Your task to perform on an android device: Open the calendar app, open the side menu, and click the "Day" option Image 0: 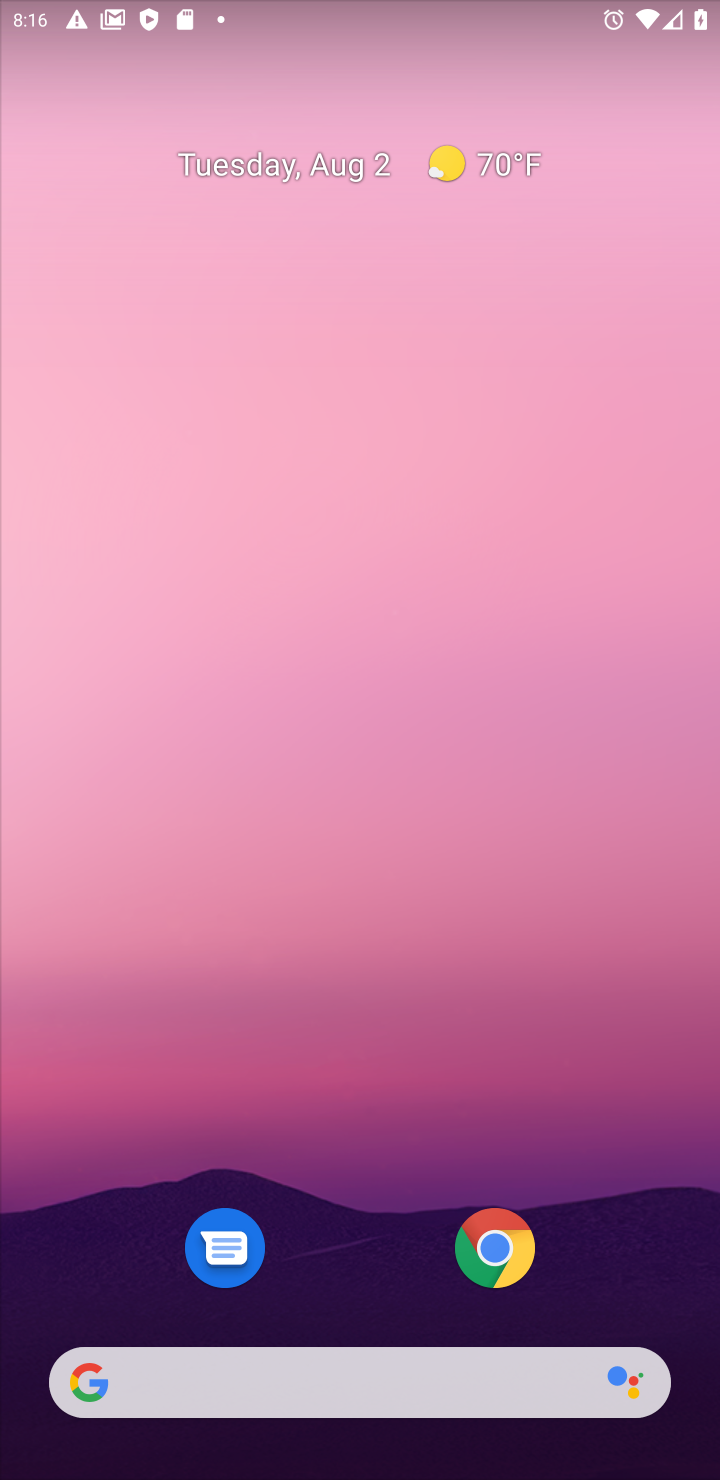
Step 0: drag from (356, 1101) to (516, 141)
Your task to perform on an android device: Open the calendar app, open the side menu, and click the "Day" option Image 1: 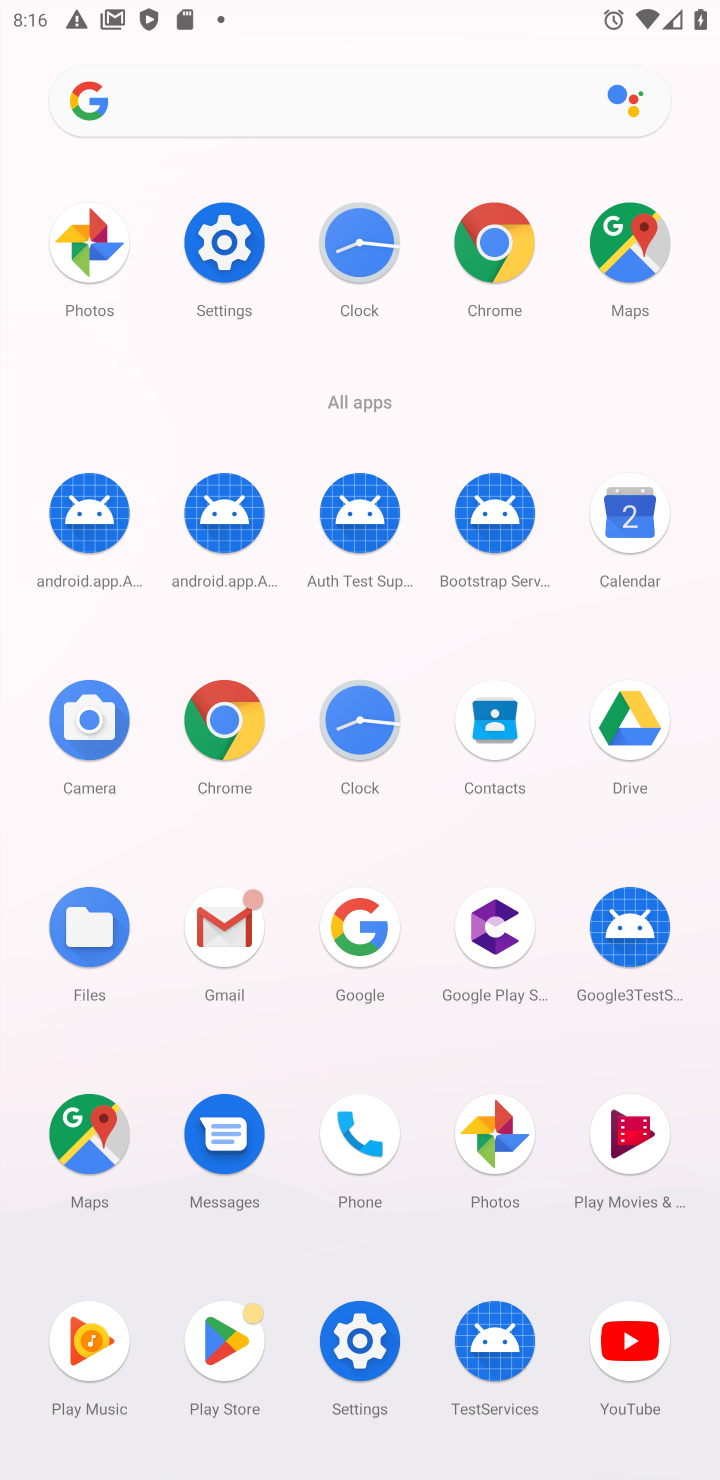
Step 1: click (628, 517)
Your task to perform on an android device: Open the calendar app, open the side menu, and click the "Day" option Image 2: 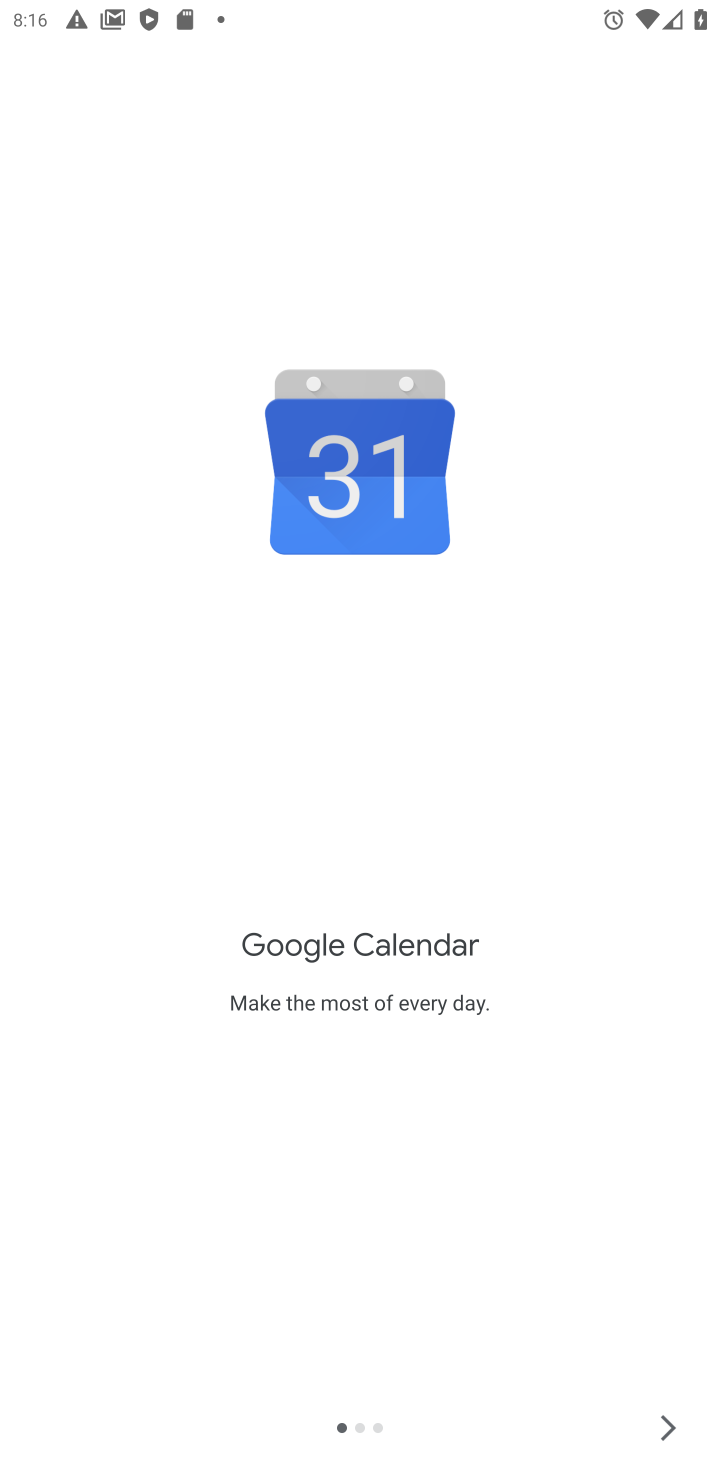
Step 2: click (671, 1422)
Your task to perform on an android device: Open the calendar app, open the side menu, and click the "Day" option Image 3: 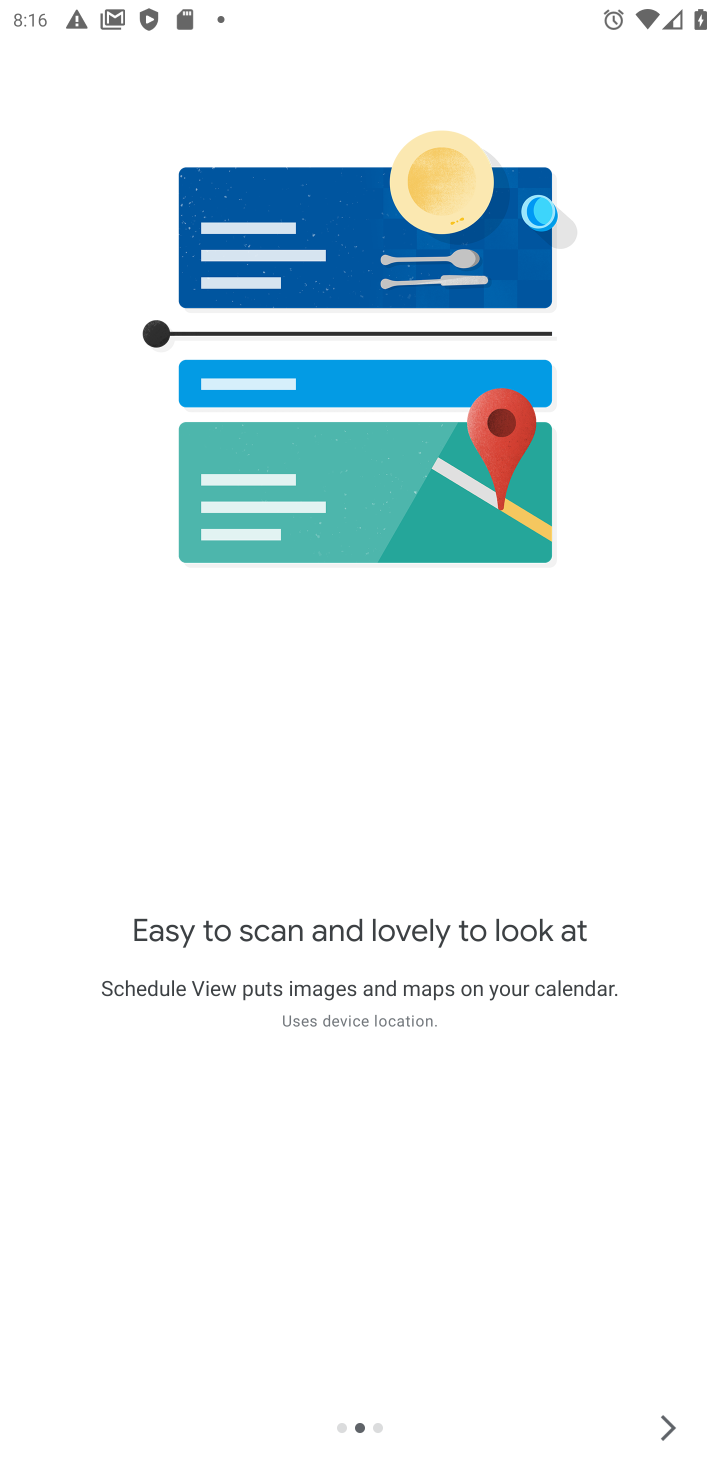
Step 3: click (671, 1422)
Your task to perform on an android device: Open the calendar app, open the side menu, and click the "Day" option Image 4: 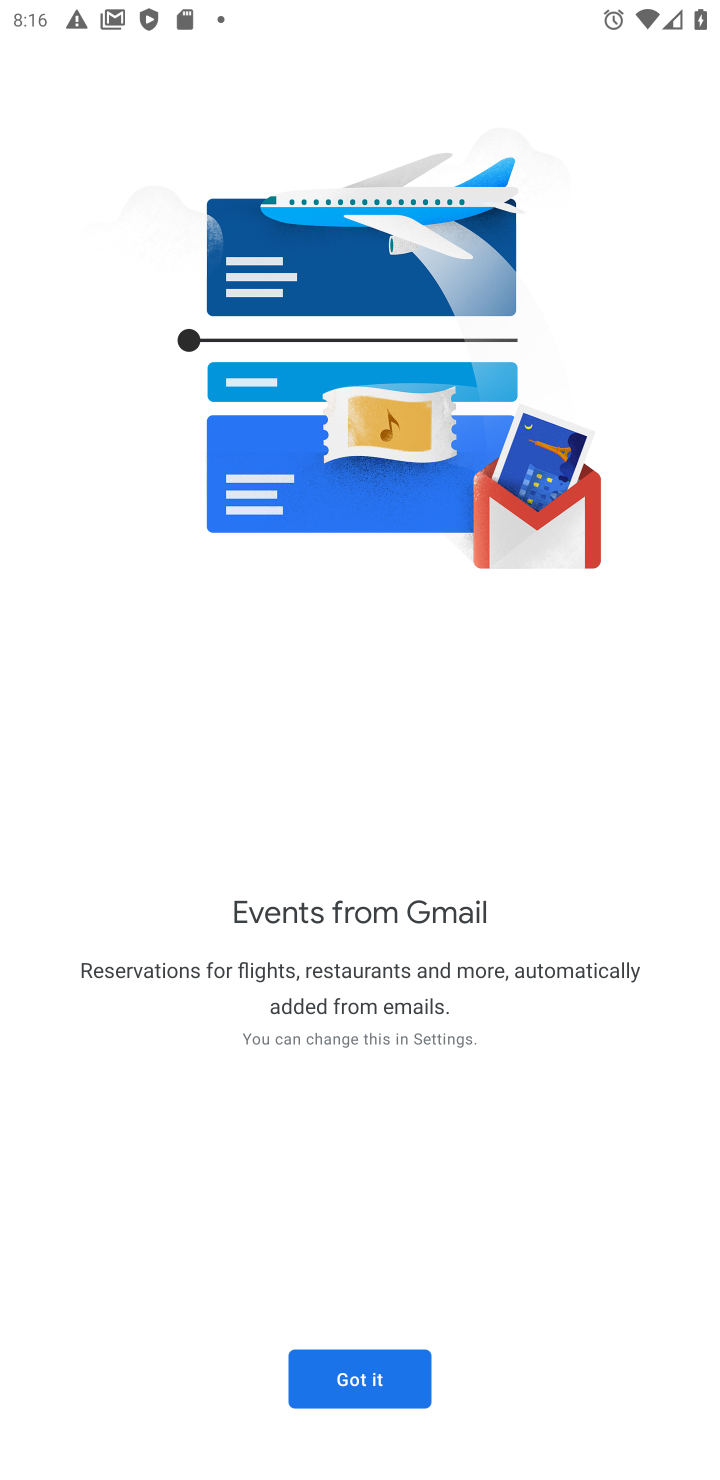
Step 4: click (375, 1368)
Your task to perform on an android device: Open the calendar app, open the side menu, and click the "Day" option Image 5: 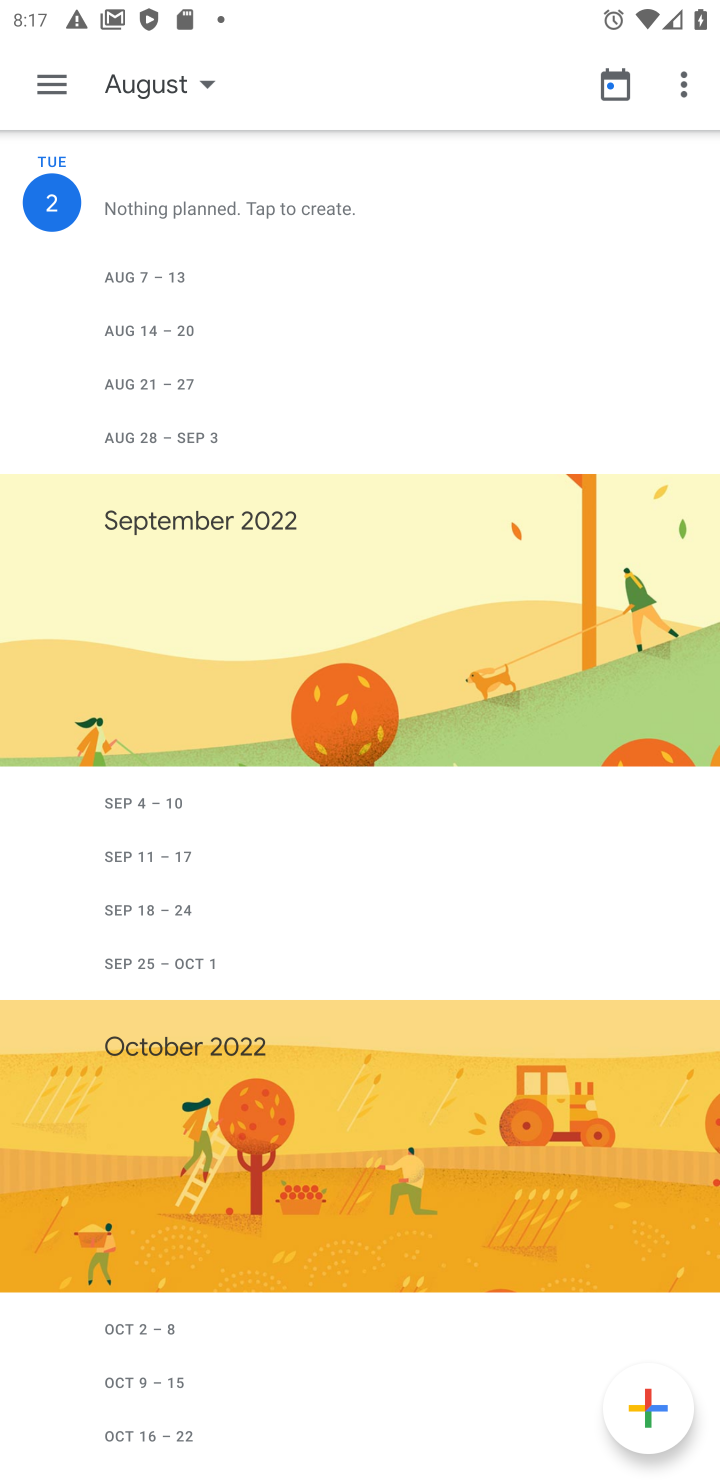
Step 5: click (58, 75)
Your task to perform on an android device: Open the calendar app, open the side menu, and click the "Day" option Image 6: 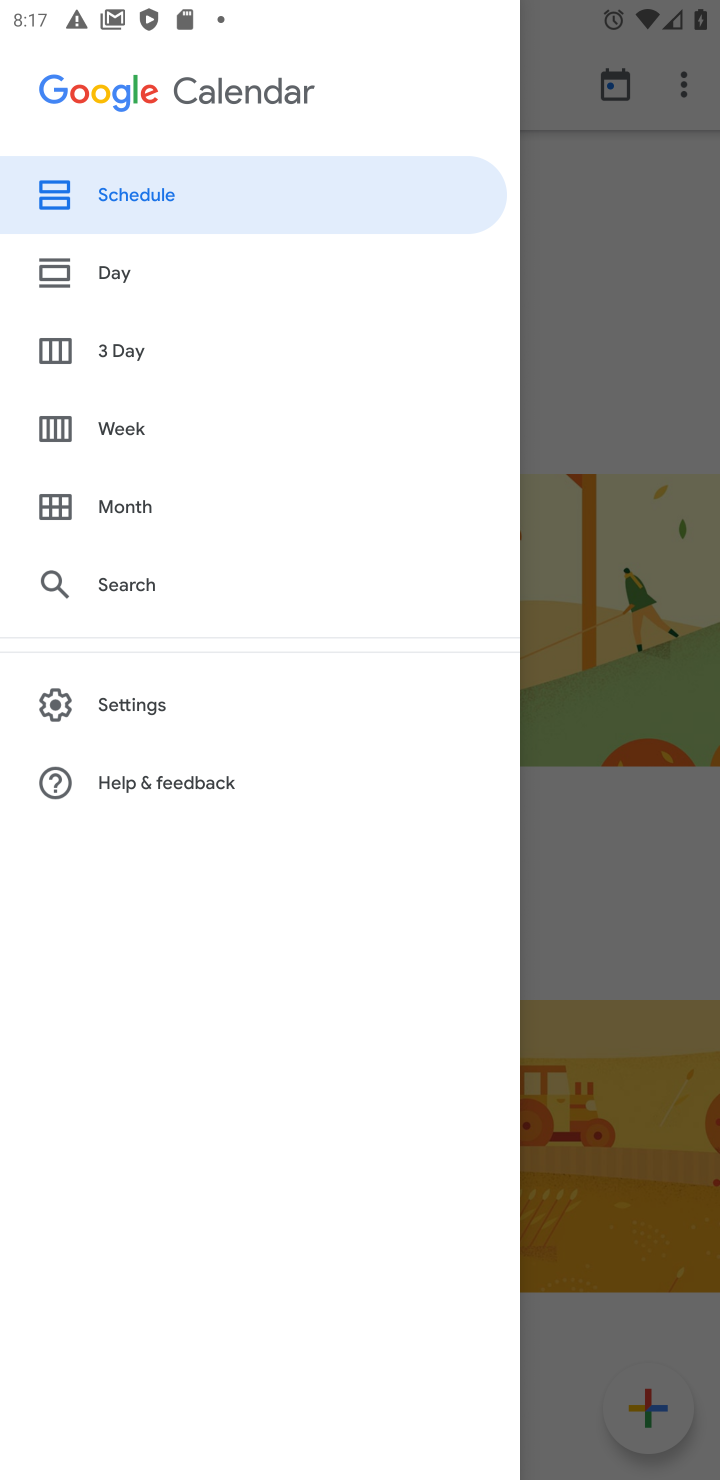
Step 6: click (109, 276)
Your task to perform on an android device: Open the calendar app, open the side menu, and click the "Day" option Image 7: 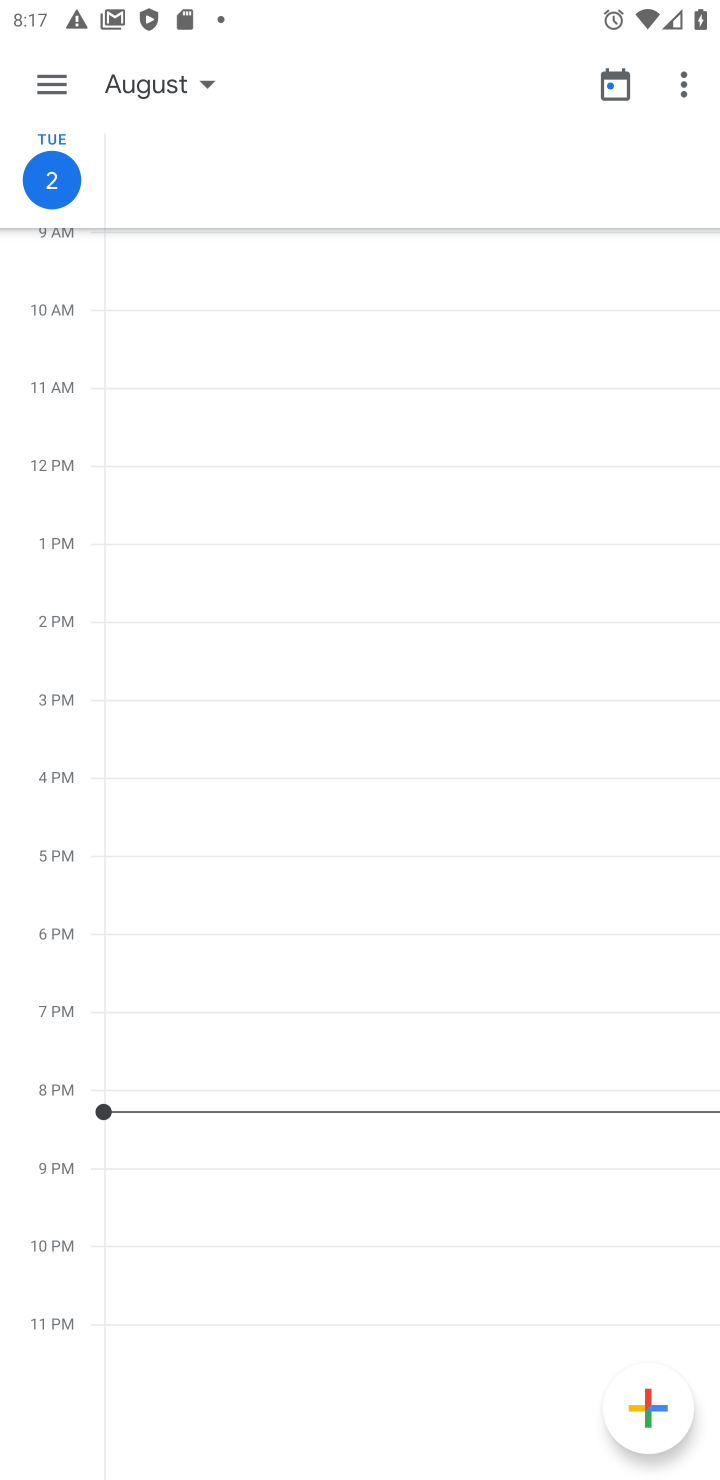
Step 7: task complete